Your task to perform on an android device: Open Yahoo.com Image 0: 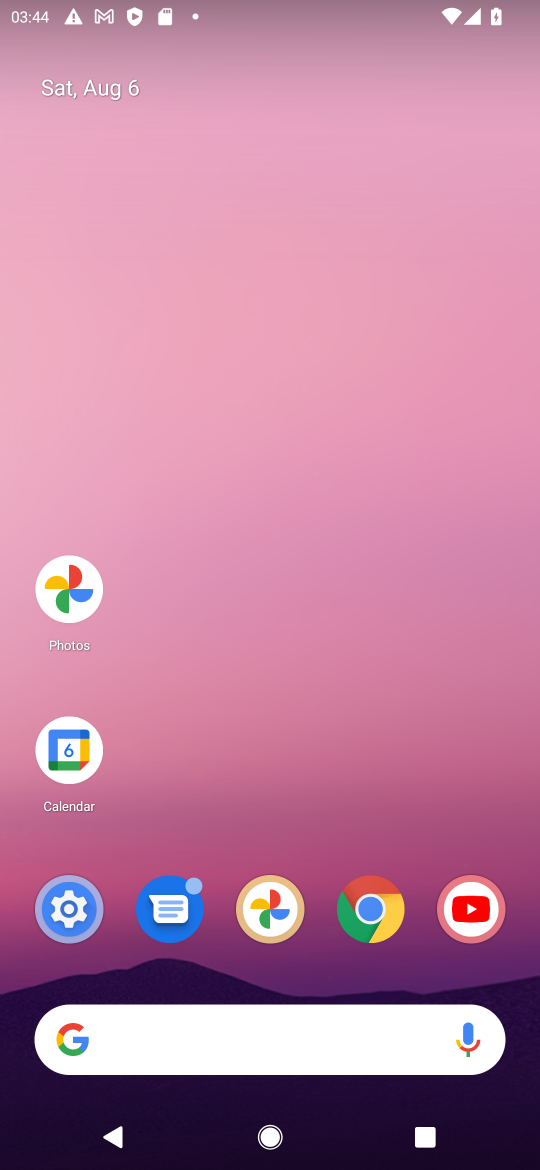
Step 0: click (365, 911)
Your task to perform on an android device: Open Yahoo.com Image 1: 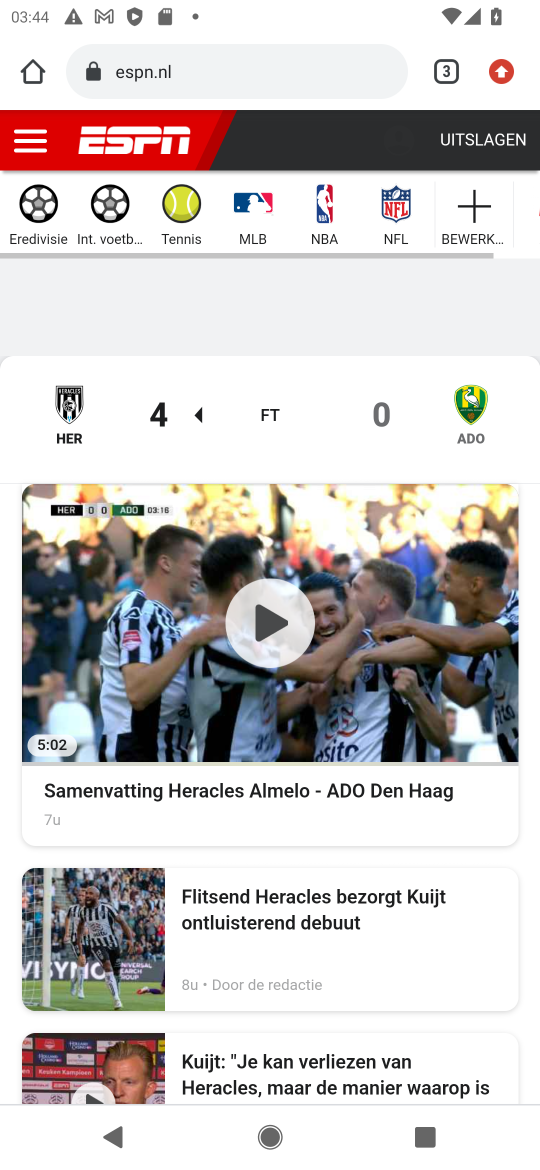
Step 1: click (500, 64)
Your task to perform on an android device: Open Yahoo.com Image 2: 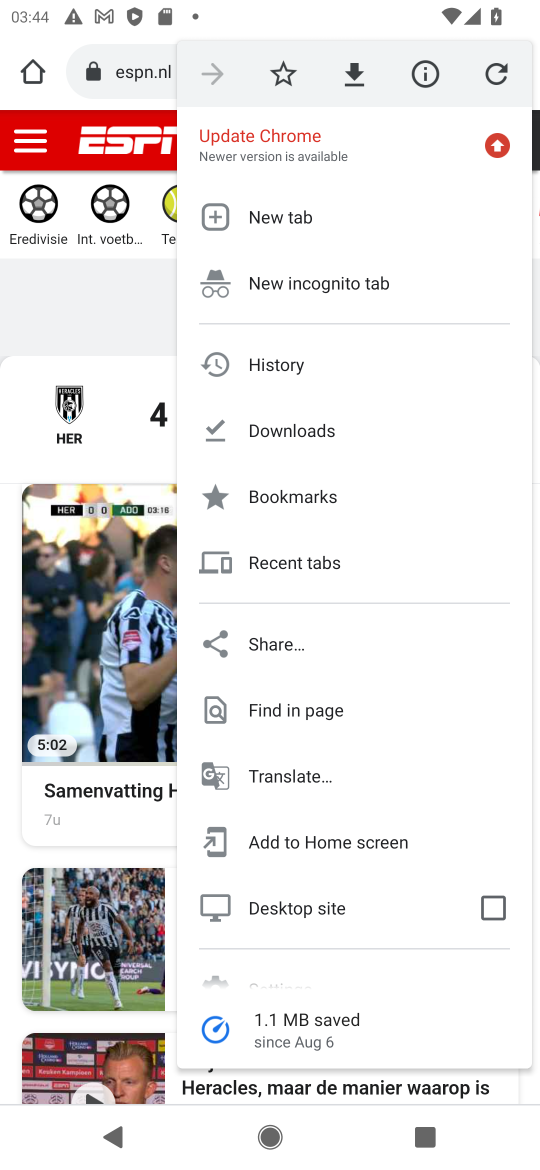
Step 2: click (277, 204)
Your task to perform on an android device: Open Yahoo.com Image 3: 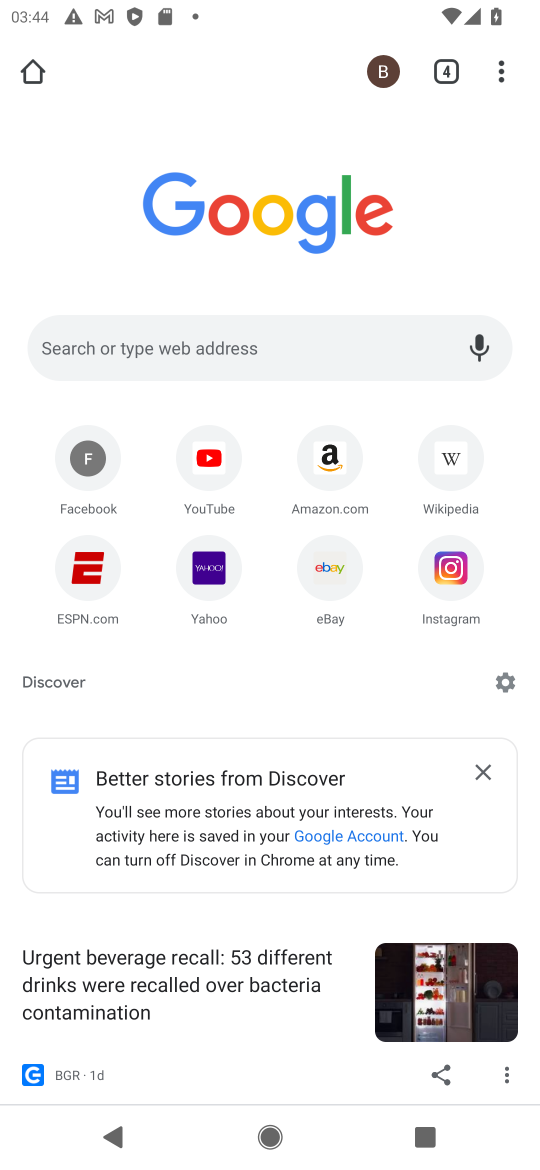
Step 3: click (220, 570)
Your task to perform on an android device: Open Yahoo.com Image 4: 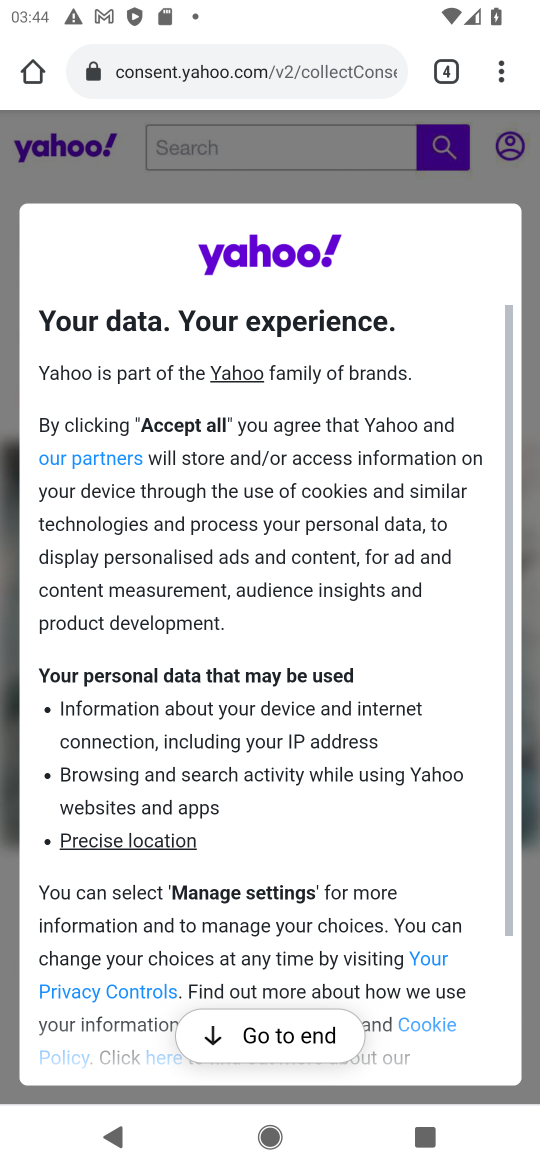
Step 4: click (265, 1042)
Your task to perform on an android device: Open Yahoo.com Image 5: 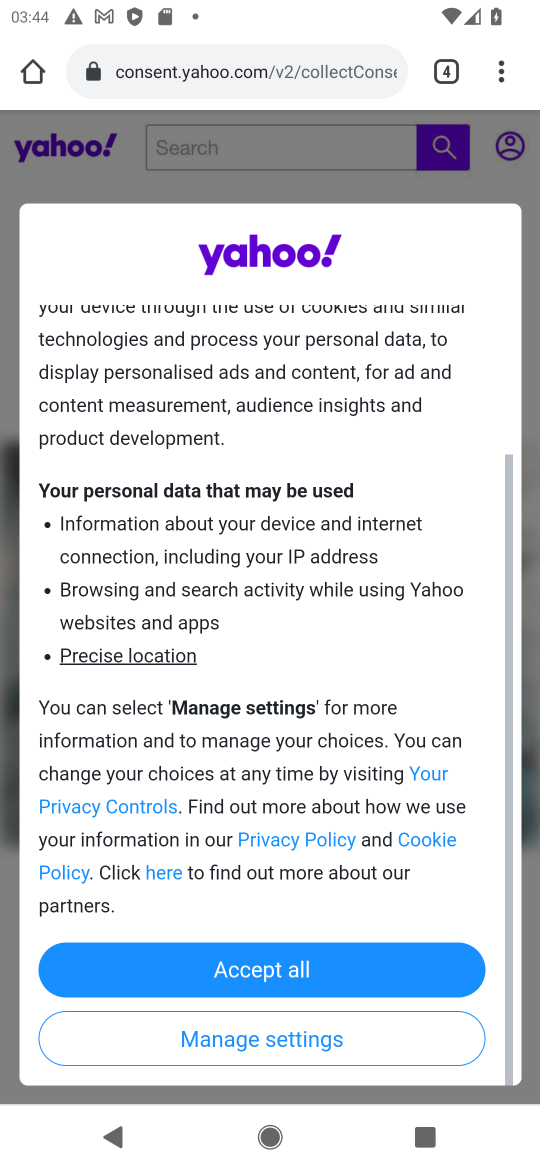
Step 5: click (277, 965)
Your task to perform on an android device: Open Yahoo.com Image 6: 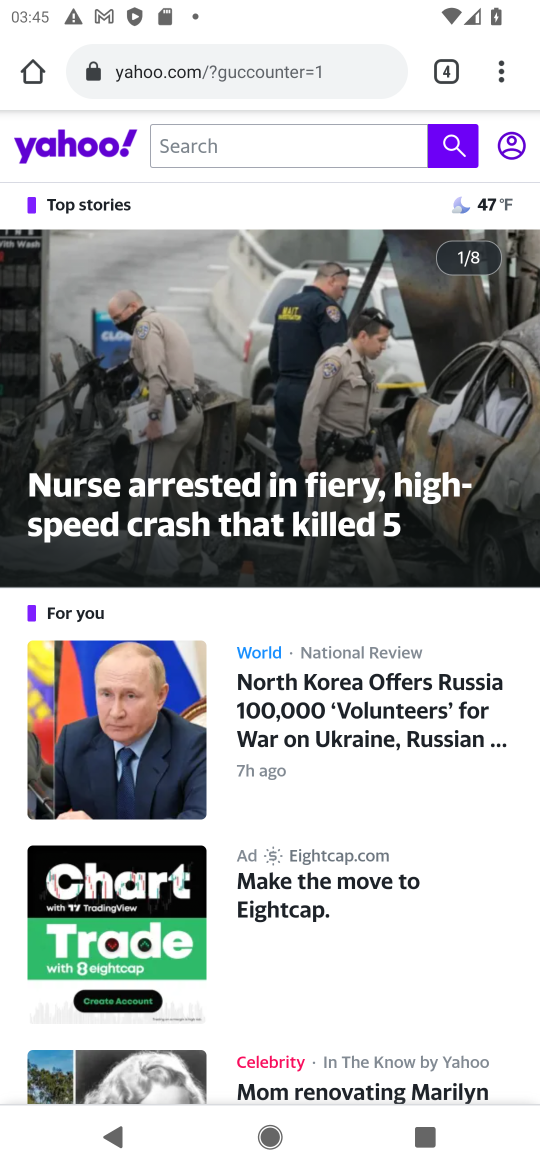
Step 6: task complete